Your task to perform on an android device: turn off location Image 0: 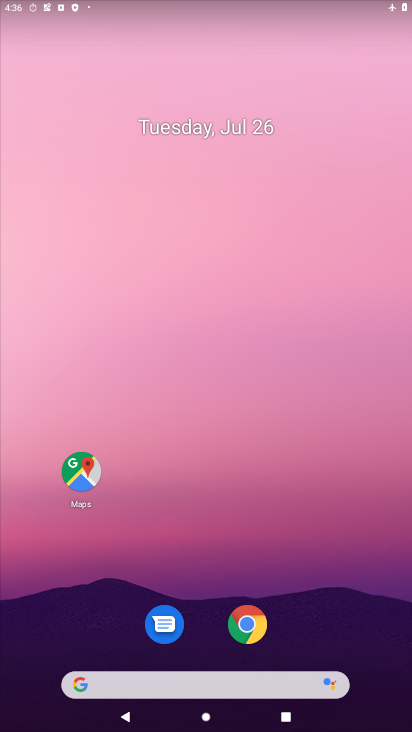
Step 0: drag from (219, 705) to (282, 10)
Your task to perform on an android device: turn off location Image 1: 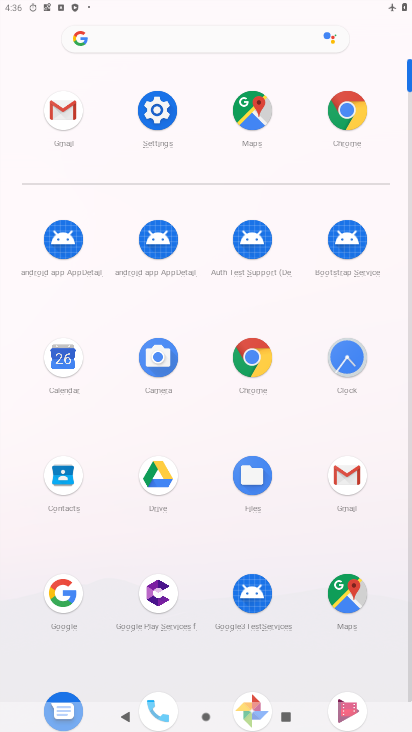
Step 1: click (150, 104)
Your task to perform on an android device: turn off location Image 2: 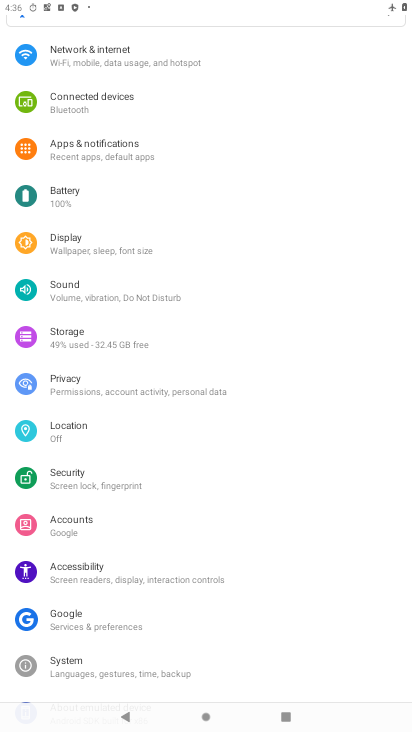
Step 2: click (83, 426)
Your task to perform on an android device: turn off location Image 3: 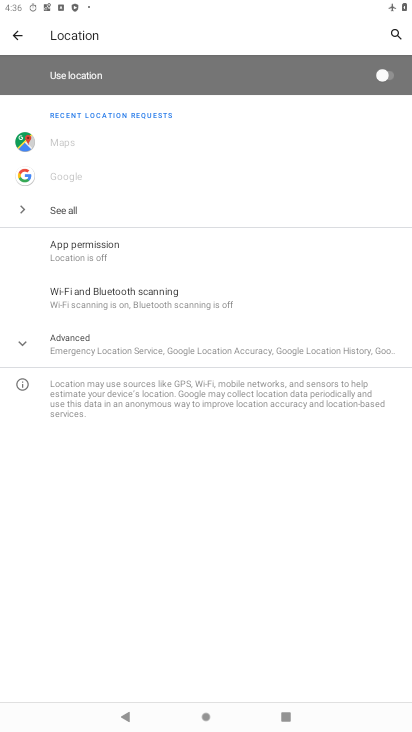
Step 3: click (383, 78)
Your task to perform on an android device: turn off location Image 4: 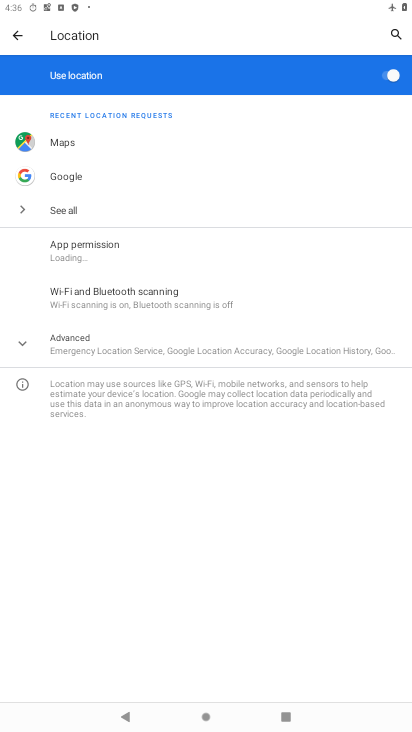
Step 4: task complete